Your task to perform on an android device: move a message to another label in the gmail app Image 0: 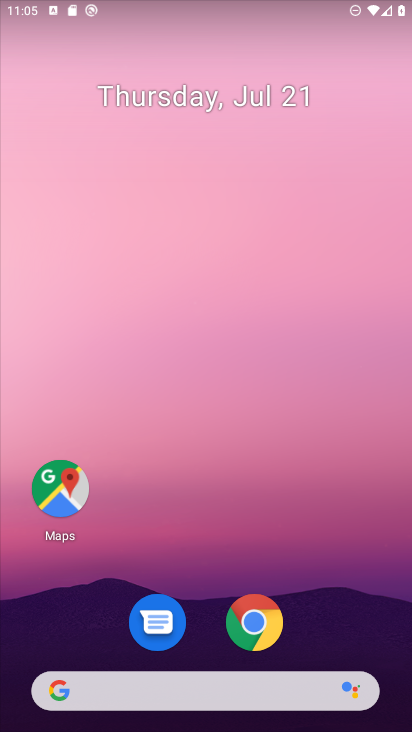
Step 0: drag from (191, 700) to (279, 49)
Your task to perform on an android device: move a message to another label in the gmail app Image 1: 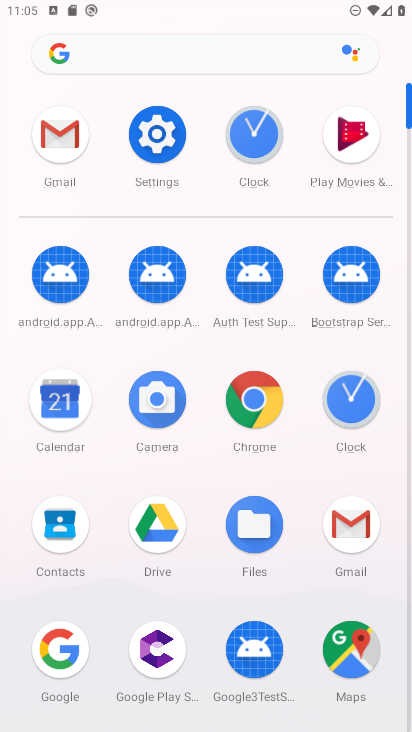
Step 1: click (57, 147)
Your task to perform on an android device: move a message to another label in the gmail app Image 2: 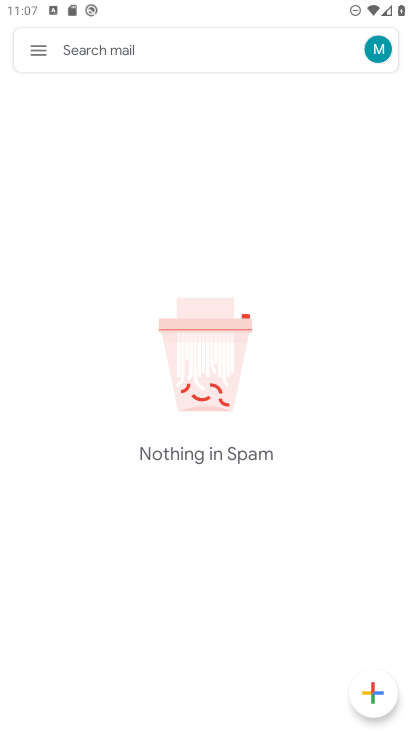
Step 2: task complete